Your task to perform on an android device: View the shopping cart on newegg.com. Search for apple airpods pro on newegg.com, select the first entry, add it to the cart, then select checkout. Image 0: 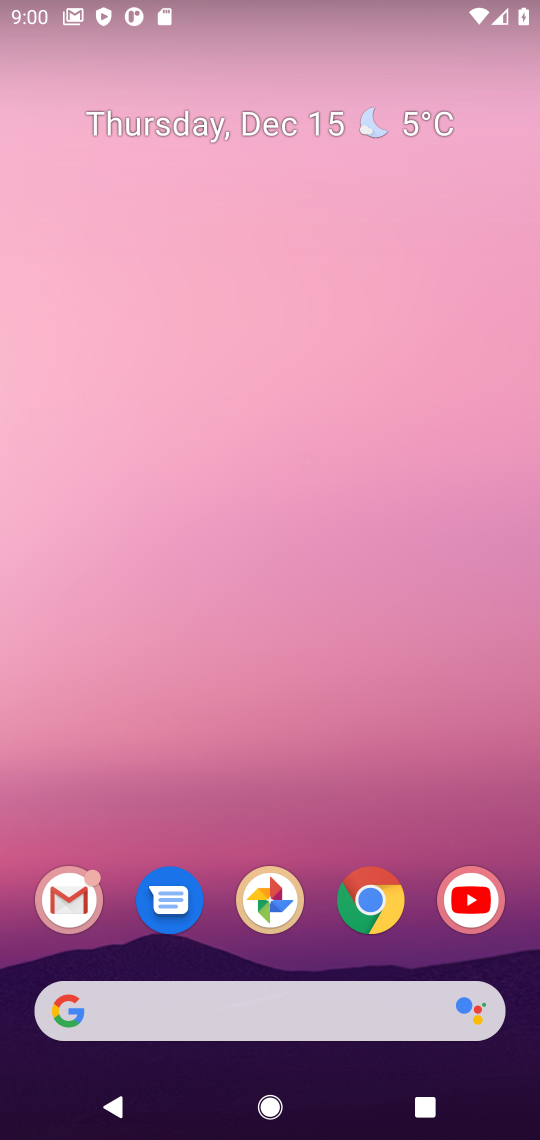
Step 0: click (365, 915)
Your task to perform on an android device: View the shopping cart on newegg.com. Search for apple airpods pro on newegg.com, select the first entry, add it to the cart, then select checkout. Image 1: 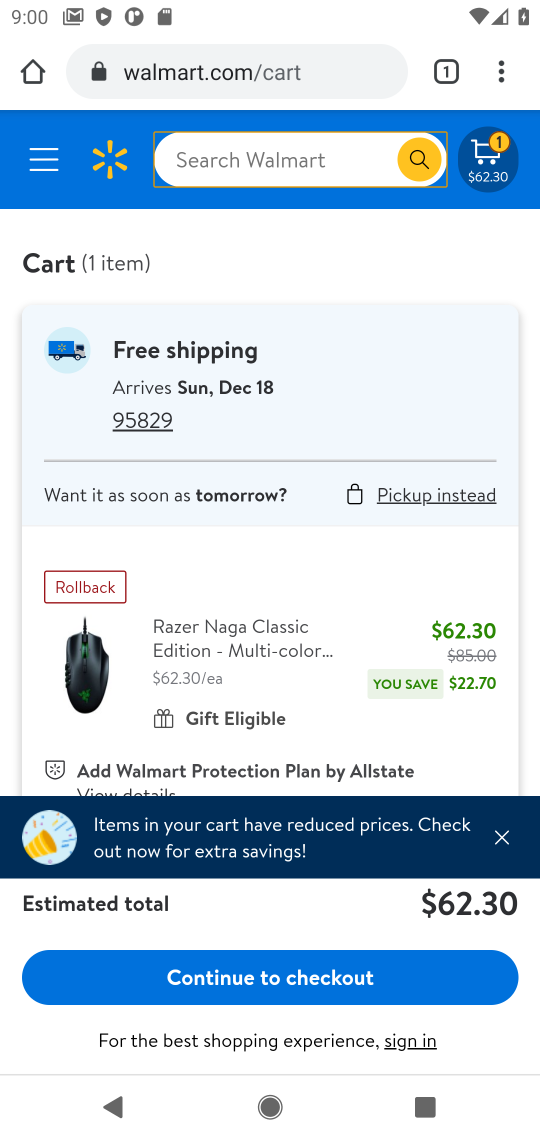
Step 1: click (243, 77)
Your task to perform on an android device: View the shopping cart on newegg.com. Search for apple airpods pro on newegg.com, select the first entry, add it to the cart, then select checkout. Image 2: 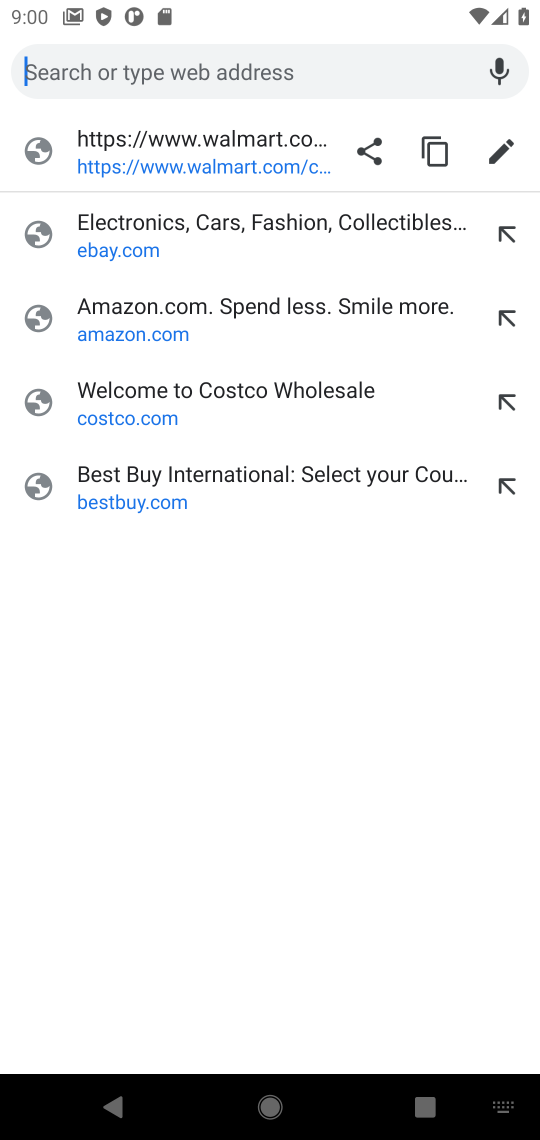
Step 2: type "newegg.com"
Your task to perform on an android device: View the shopping cart on newegg.com. Search for apple airpods pro on newegg.com, select the first entry, add it to the cart, then select checkout. Image 3: 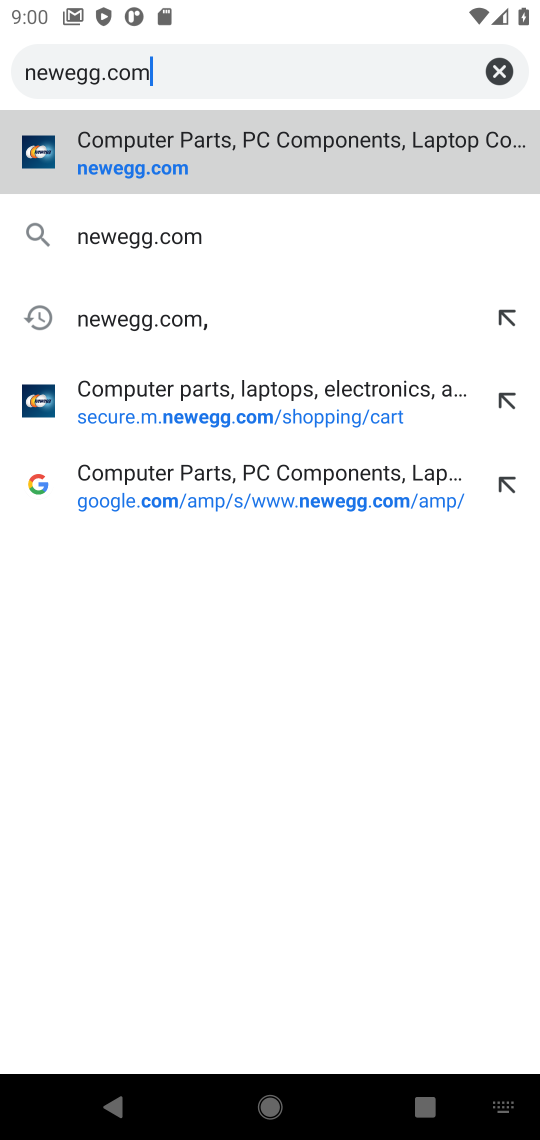
Step 3: press enter
Your task to perform on an android device: View the shopping cart on newegg.com. Search for apple airpods pro on newegg.com, select the first entry, add it to the cart, then select checkout. Image 4: 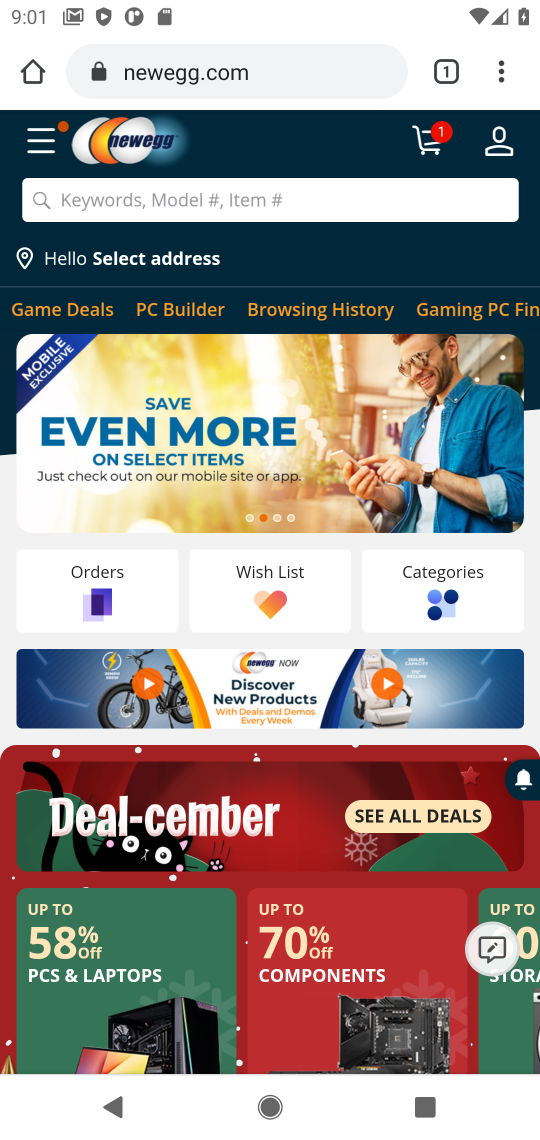
Step 4: click (250, 210)
Your task to perform on an android device: View the shopping cart on newegg.com. Search for apple airpods pro on newegg.com, select the first entry, add it to the cart, then select checkout. Image 5: 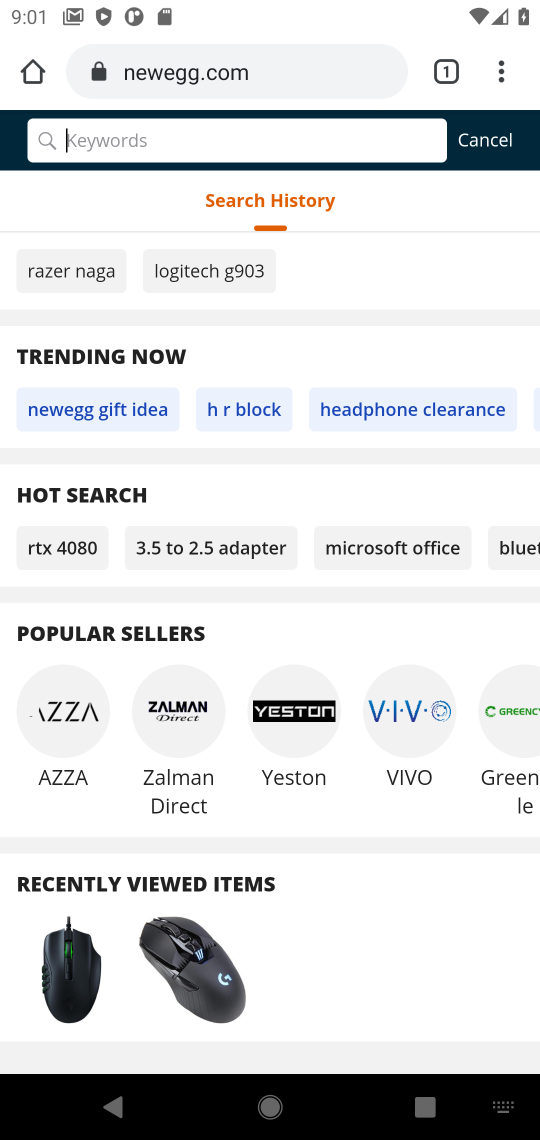
Step 5: type "apple airpods pro"
Your task to perform on an android device: View the shopping cart on newegg.com. Search for apple airpods pro on newegg.com, select the first entry, add it to the cart, then select checkout. Image 6: 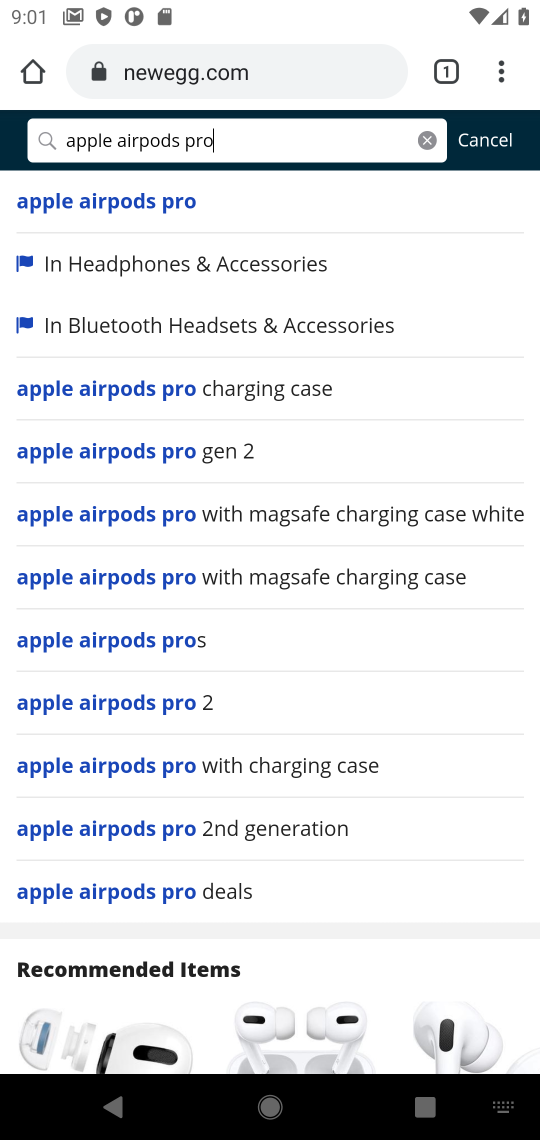
Step 6: press enter
Your task to perform on an android device: View the shopping cart on newegg.com. Search for apple airpods pro on newegg.com, select the first entry, add it to the cart, then select checkout. Image 7: 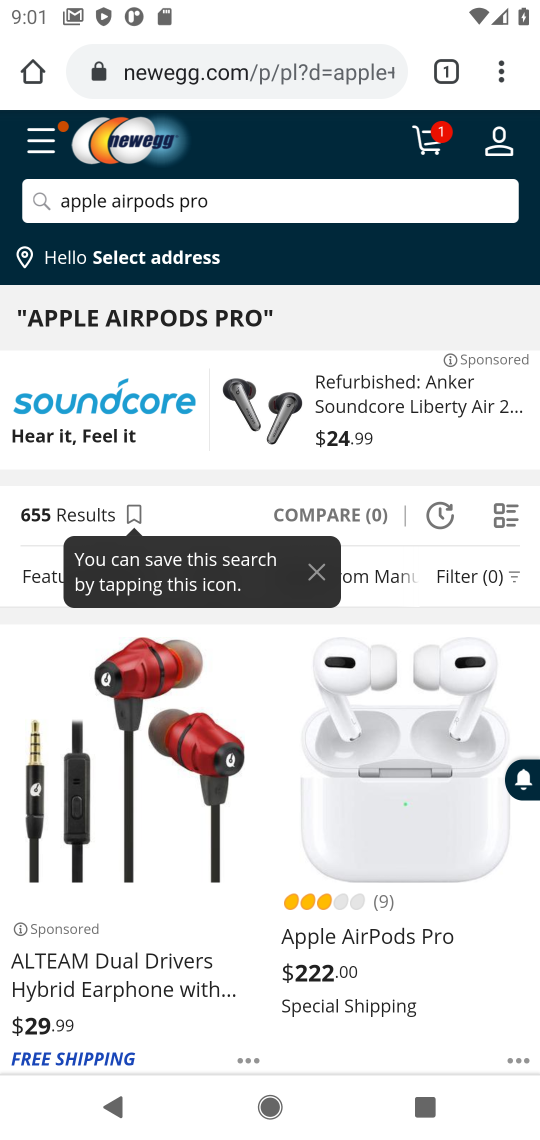
Step 7: drag from (180, 1025) to (193, 835)
Your task to perform on an android device: View the shopping cart on newegg.com. Search for apple airpods pro on newegg.com, select the first entry, add it to the cart, then select checkout. Image 8: 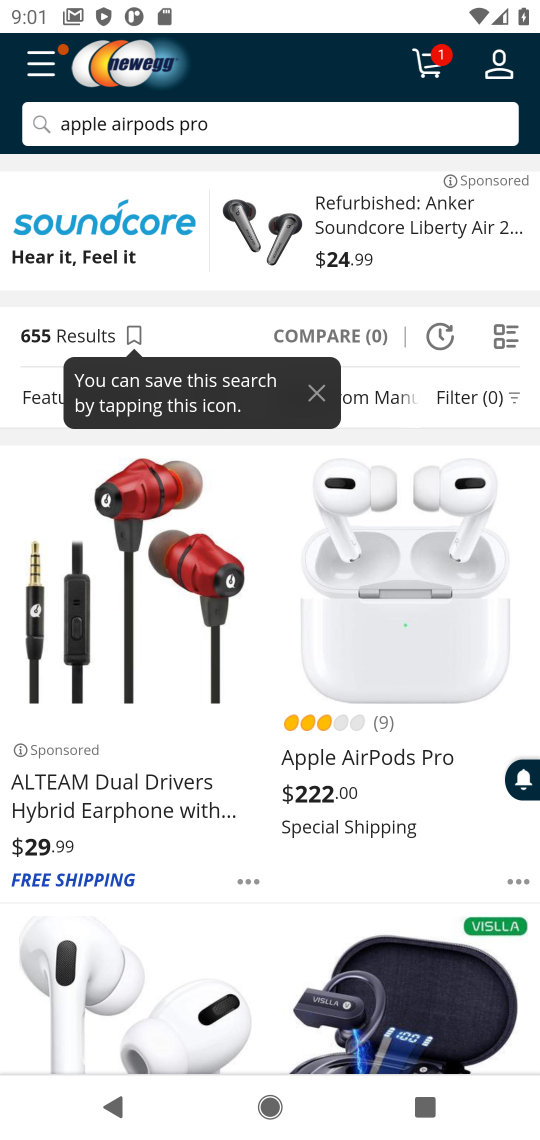
Step 8: click (442, 685)
Your task to perform on an android device: View the shopping cart on newegg.com. Search for apple airpods pro on newegg.com, select the first entry, add it to the cart, then select checkout. Image 9: 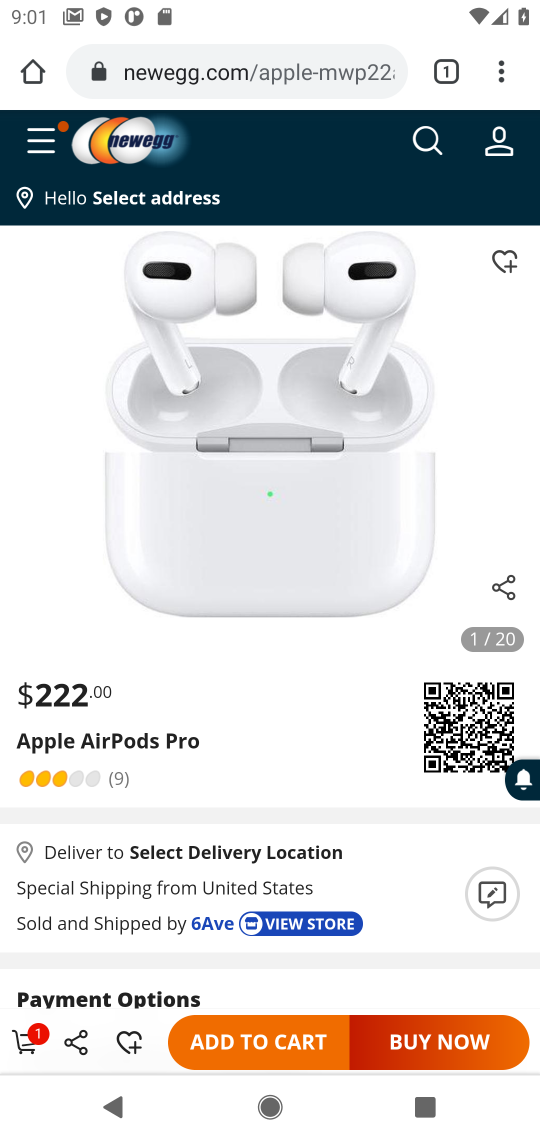
Step 9: click (271, 1045)
Your task to perform on an android device: View the shopping cart on newegg.com. Search for apple airpods pro on newegg.com, select the first entry, add it to the cart, then select checkout. Image 10: 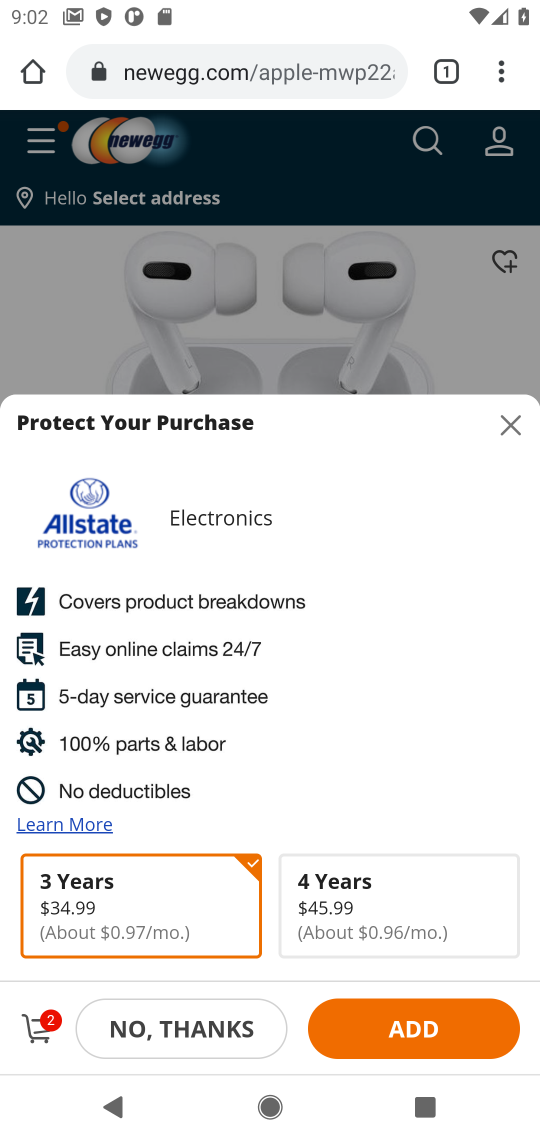
Step 10: click (364, 1036)
Your task to perform on an android device: View the shopping cart on newegg.com. Search for apple airpods pro on newegg.com, select the first entry, add it to the cart, then select checkout. Image 11: 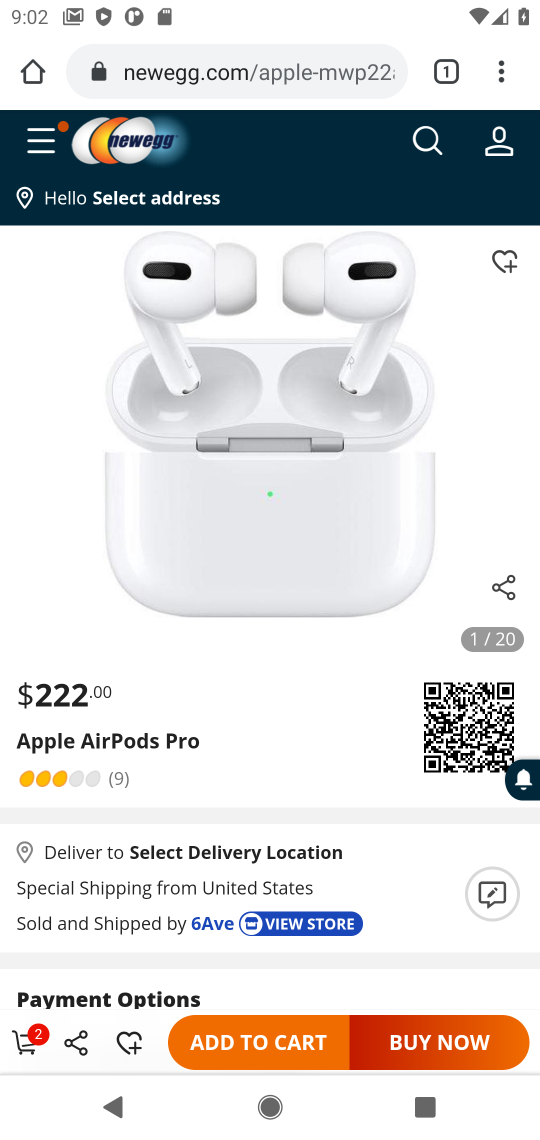
Step 11: click (29, 1048)
Your task to perform on an android device: View the shopping cart on newegg.com. Search for apple airpods pro on newegg.com, select the first entry, add it to the cart, then select checkout. Image 12: 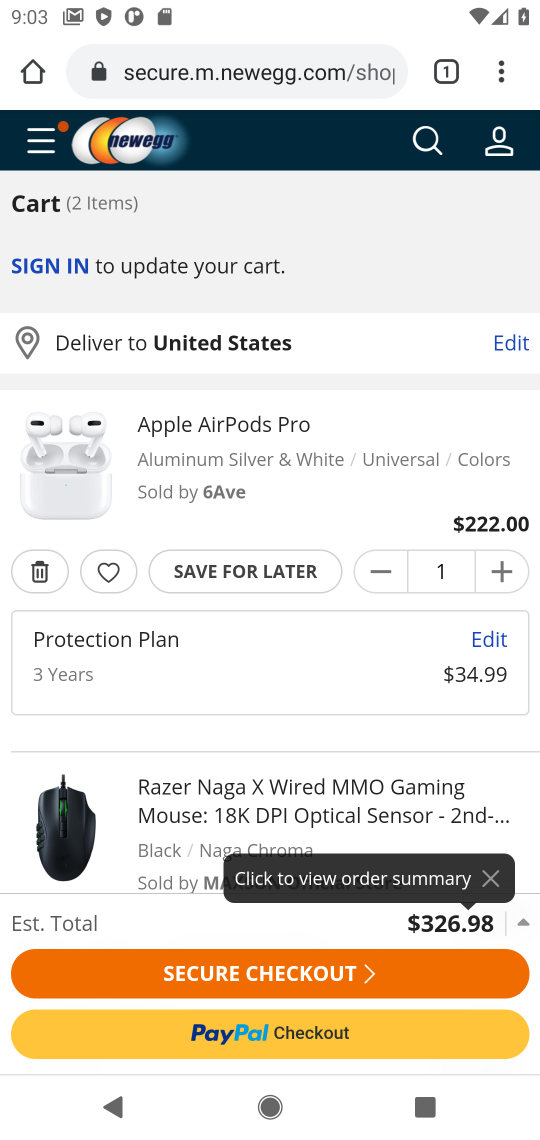
Step 12: click (231, 971)
Your task to perform on an android device: View the shopping cart on newegg.com. Search for apple airpods pro on newegg.com, select the first entry, add it to the cart, then select checkout. Image 13: 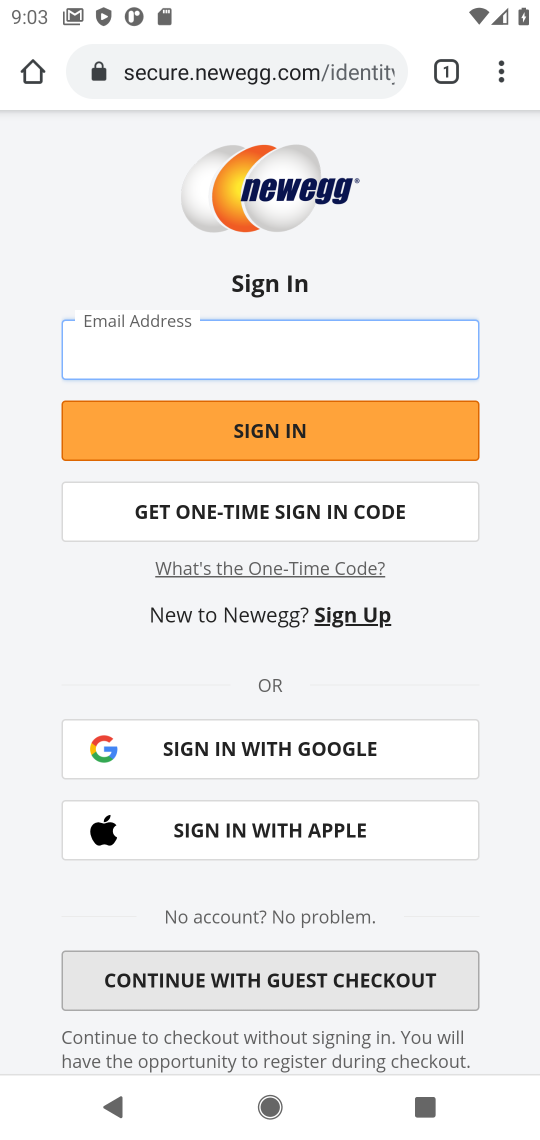
Step 13: task complete